Your task to perform on an android device: Search for Mexican restaurants on Maps Image 0: 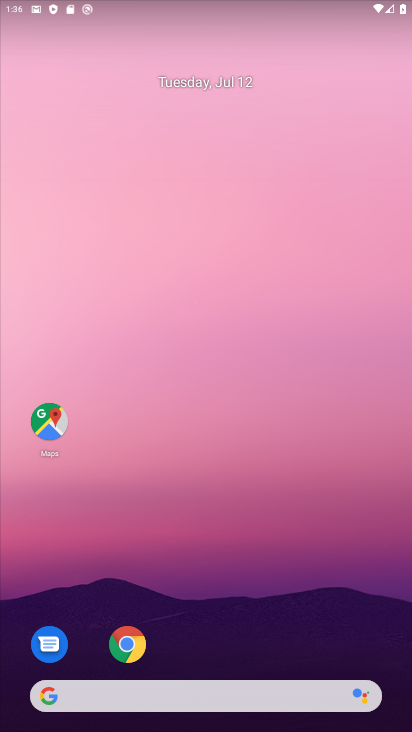
Step 0: click (45, 413)
Your task to perform on an android device: Search for Mexican restaurants on Maps Image 1: 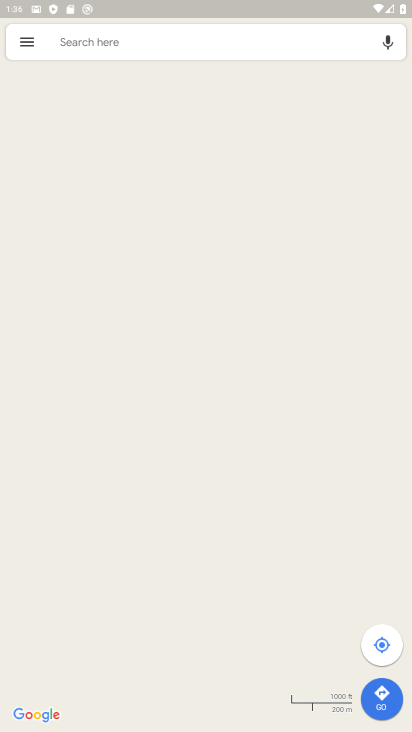
Step 1: click (122, 50)
Your task to perform on an android device: Search for Mexican restaurants on Maps Image 2: 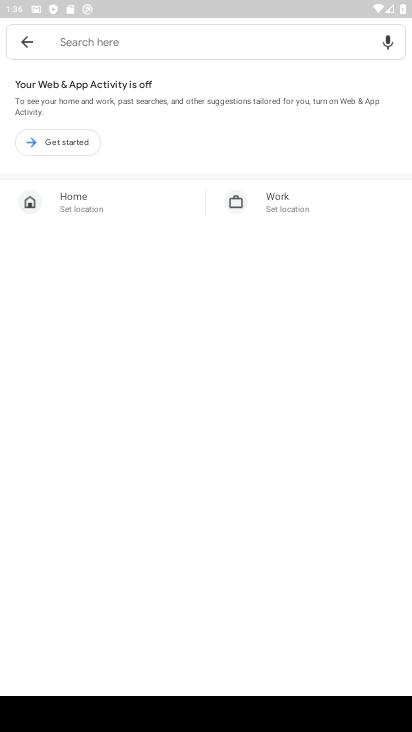
Step 2: click (116, 44)
Your task to perform on an android device: Search for Mexican restaurants on Maps Image 3: 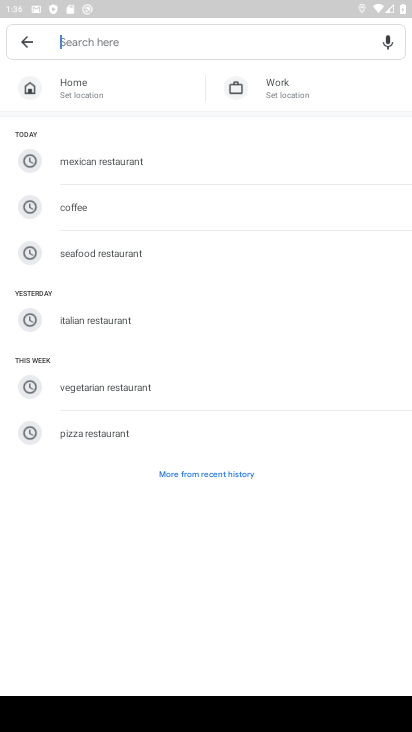
Step 3: type "mexi"
Your task to perform on an android device: Search for Mexican restaurants on Maps Image 4: 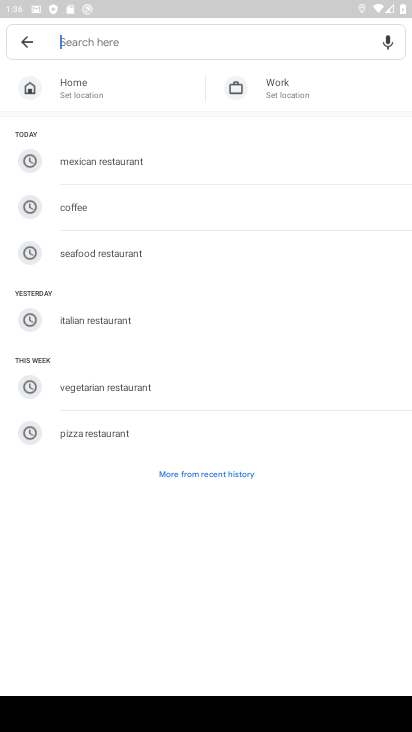
Step 4: click (87, 150)
Your task to perform on an android device: Search for Mexican restaurants on Maps Image 5: 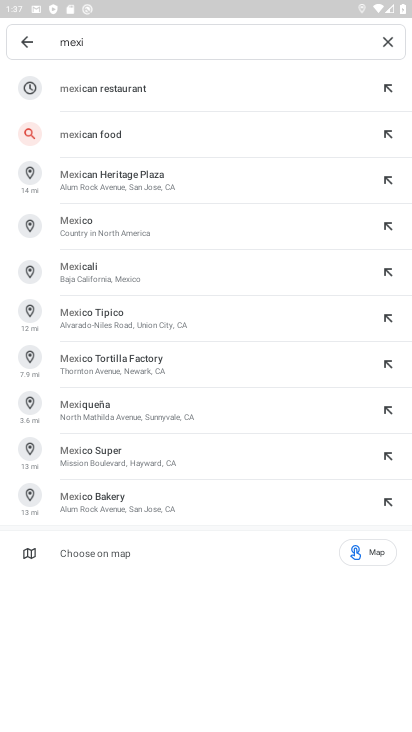
Step 5: click (145, 89)
Your task to perform on an android device: Search for Mexican restaurants on Maps Image 6: 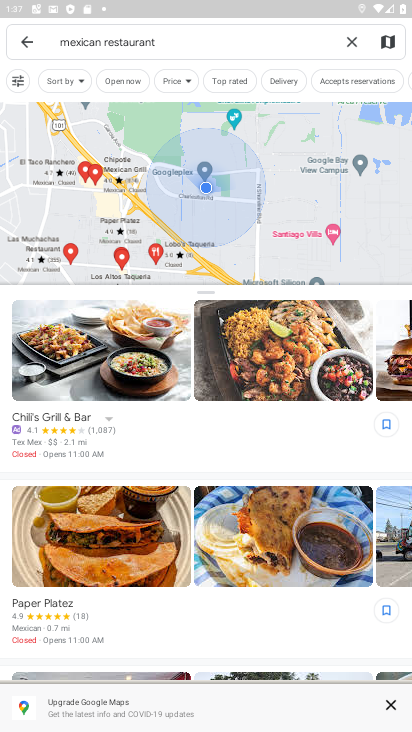
Step 6: task complete